Your task to perform on an android device: open app "Adobe Acrobat Reader: Edit PDF" Image 0: 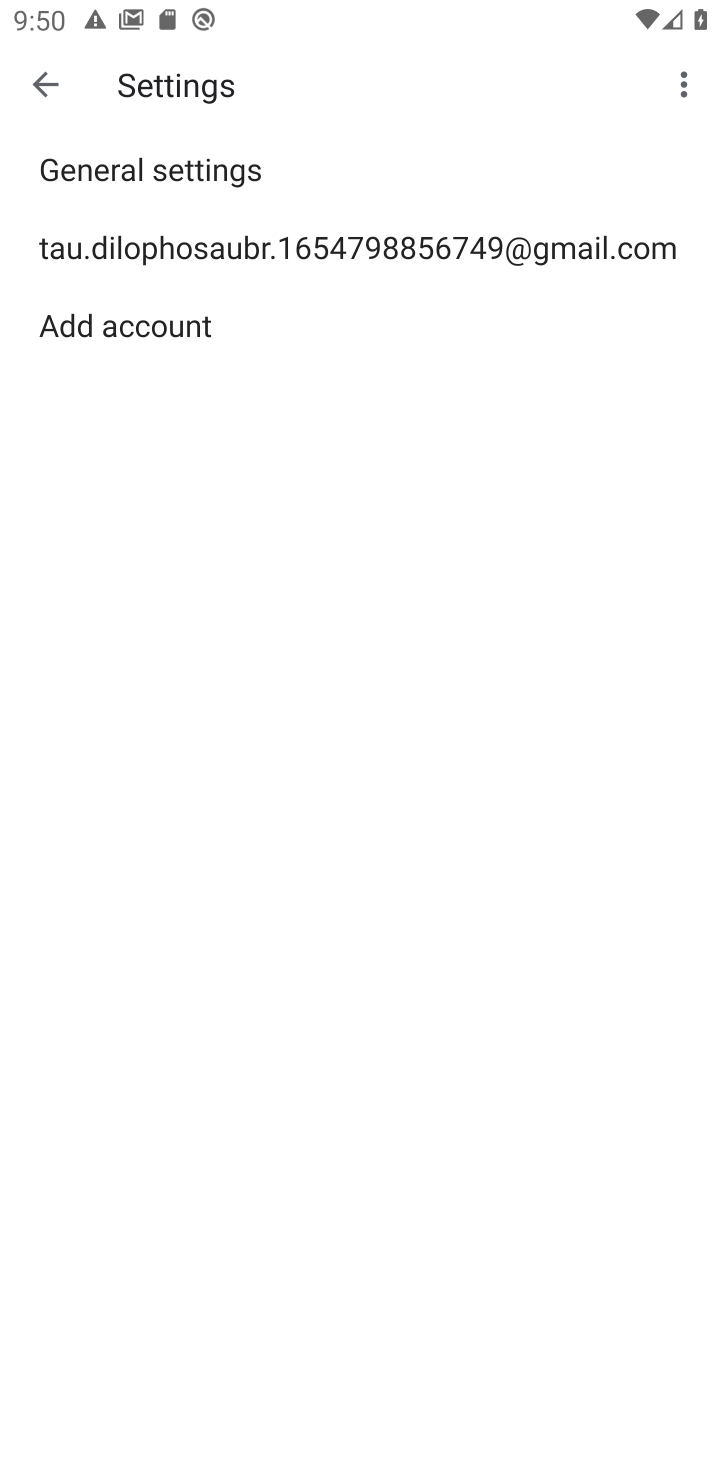
Step 0: press home button
Your task to perform on an android device: open app "Adobe Acrobat Reader: Edit PDF" Image 1: 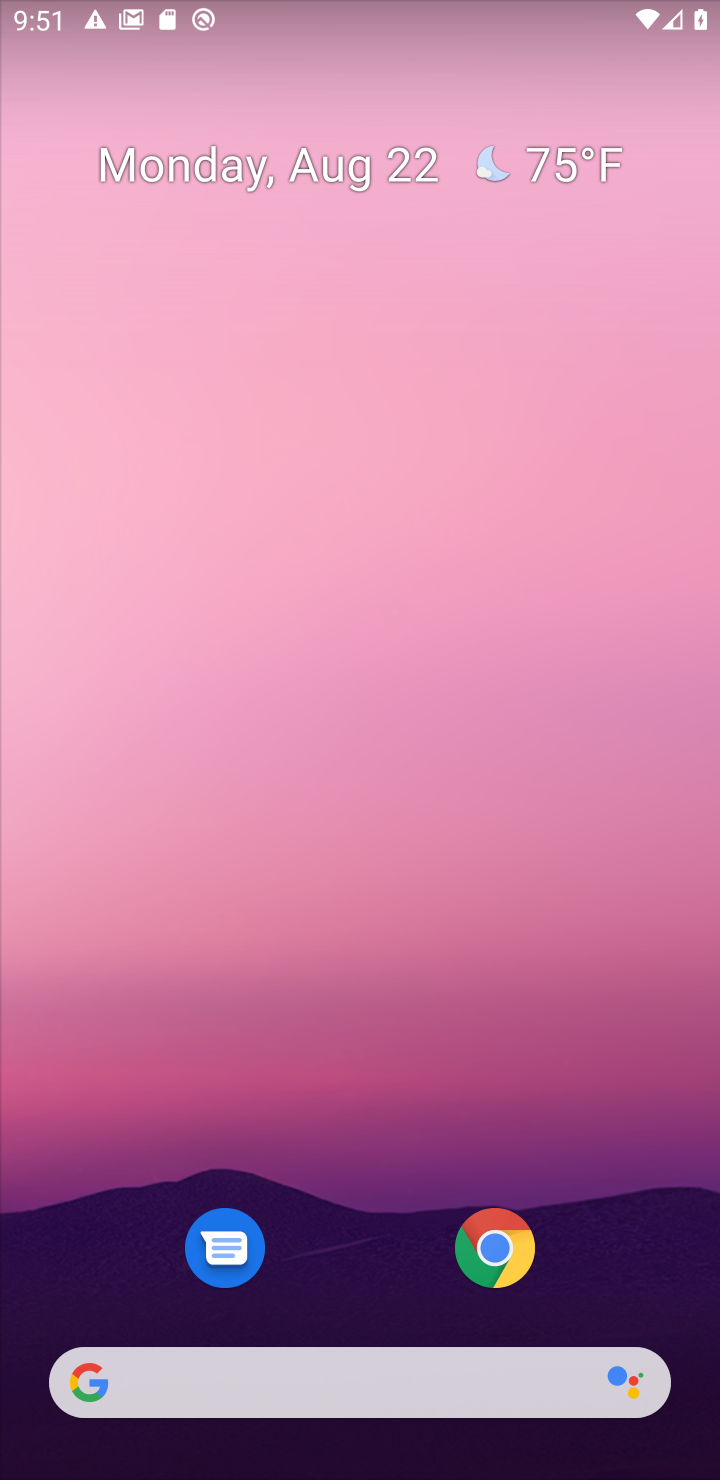
Step 1: drag from (344, 1322) to (336, 20)
Your task to perform on an android device: open app "Adobe Acrobat Reader: Edit PDF" Image 2: 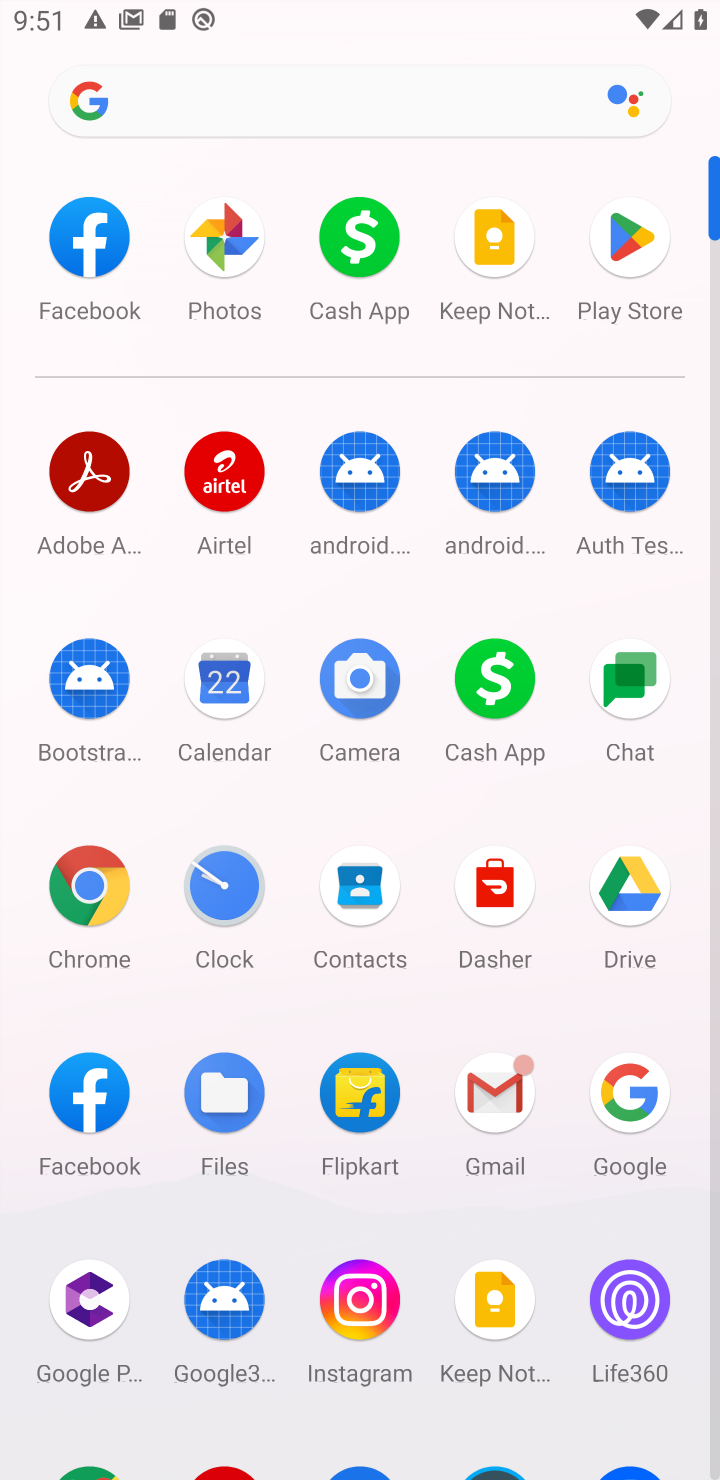
Step 2: click (86, 482)
Your task to perform on an android device: open app "Adobe Acrobat Reader: Edit PDF" Image 3: 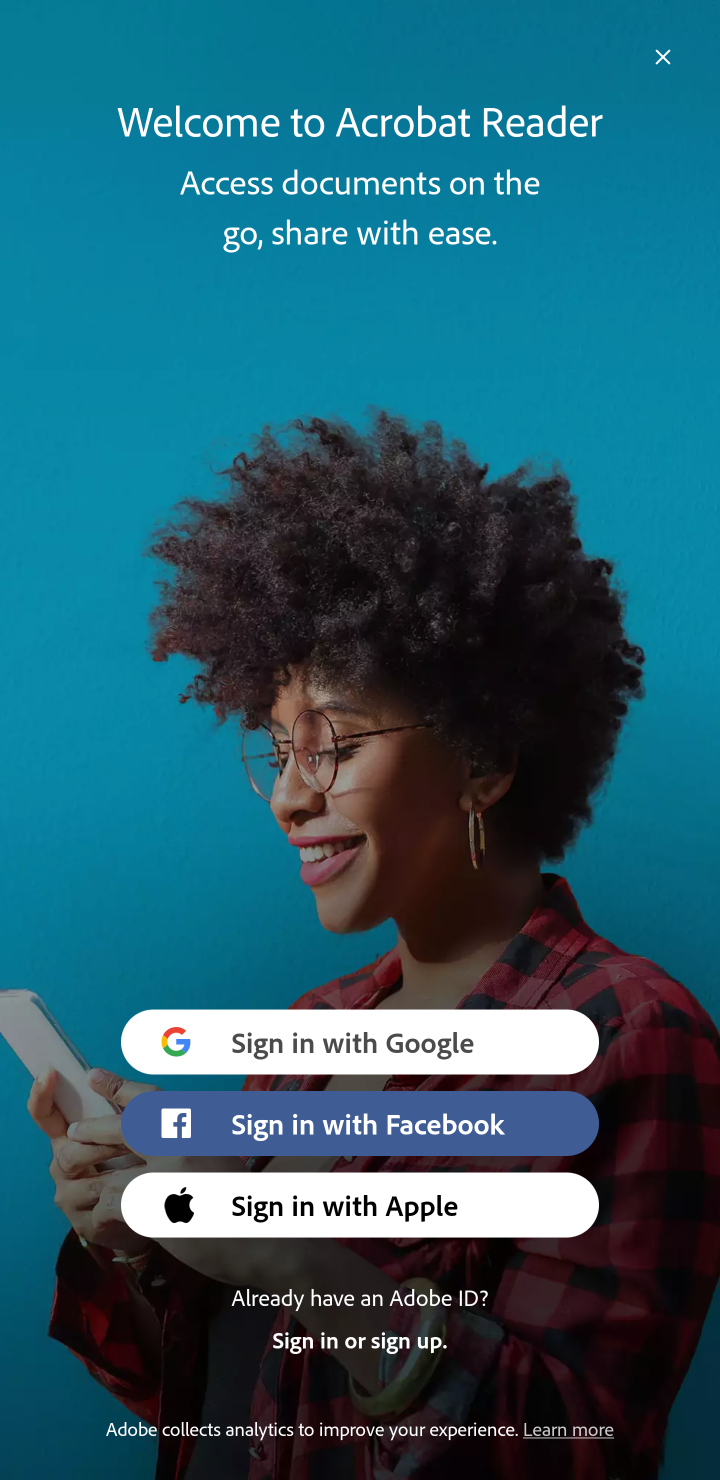
Step 3: task complete